Your task to perform on an android device: turn off notifications settings in the gmail app Image 0: 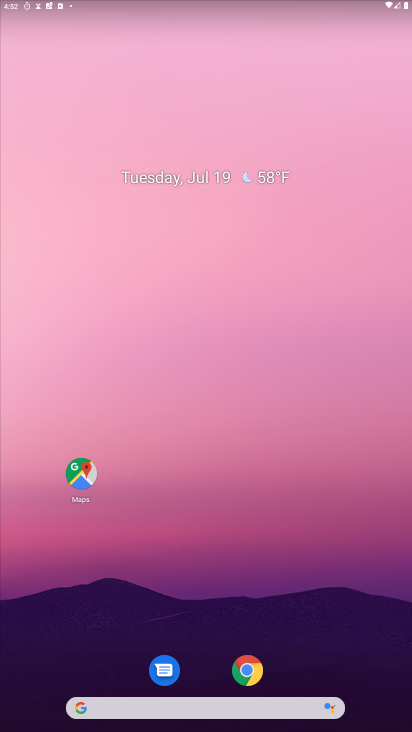
Step 0: drag from (199, 482) to (175, 1)
Your task to perform on an android device: turn off notifications settings in the gmail app Image 1: 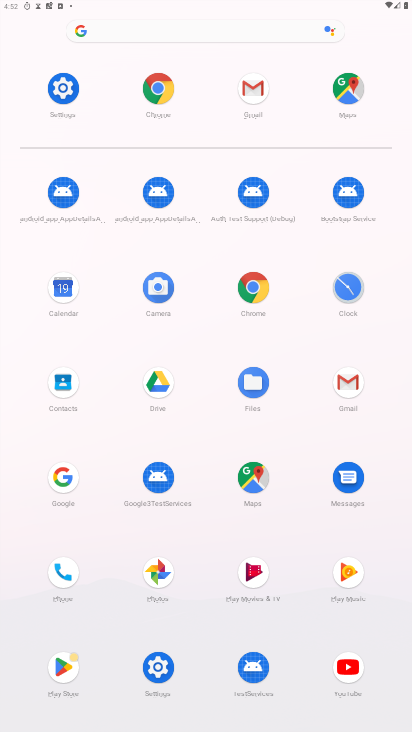
Step 1: click (345, 384)
Your task to perform on an android device: turn off notifications settings in the gmail app Image 2: 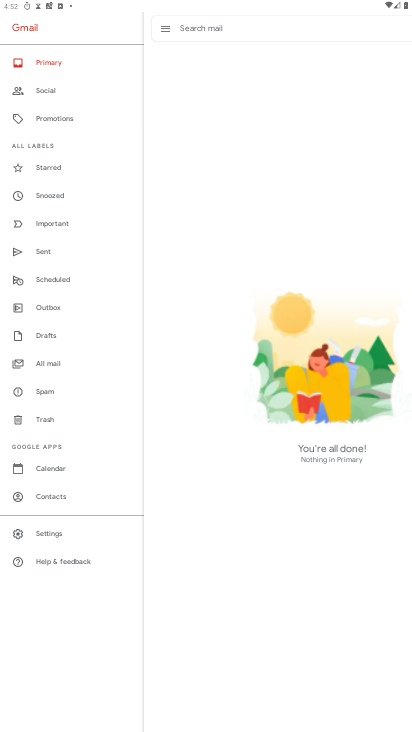
Step 2: click (56, 531)
Your task to perform on an android device: turn off notifications settings in the gmail app Image 3: 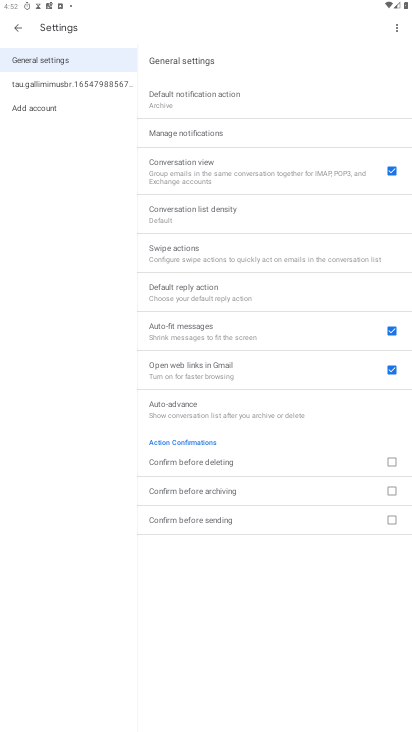
Step 3: click (238, 135)
Your task to perform on an android device: turn off notifications settings in the gmail app Image 4: 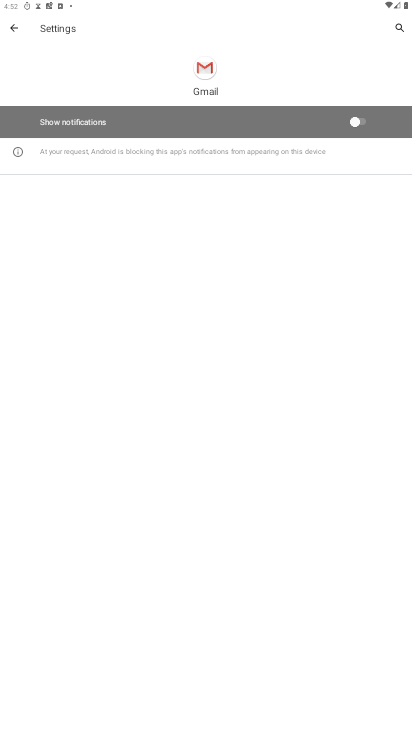
Step 4: task complete